Your task to perform on an android device: When is my next meeting? Image 0: 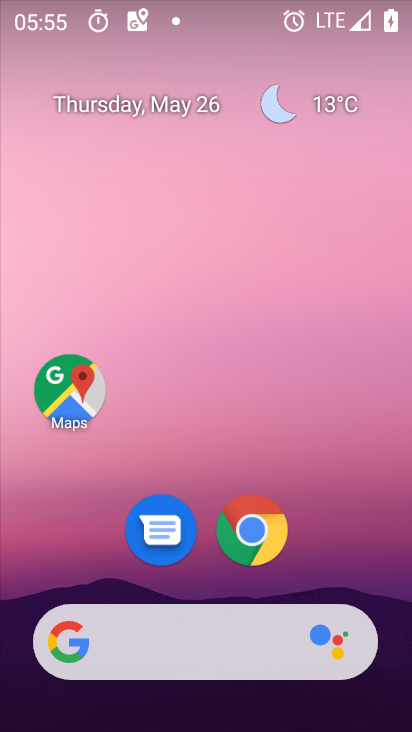
Step 0: drag from (351, 623) to (374, 3)
Your task to perform on an android device: When is my next meeting? Image 1: 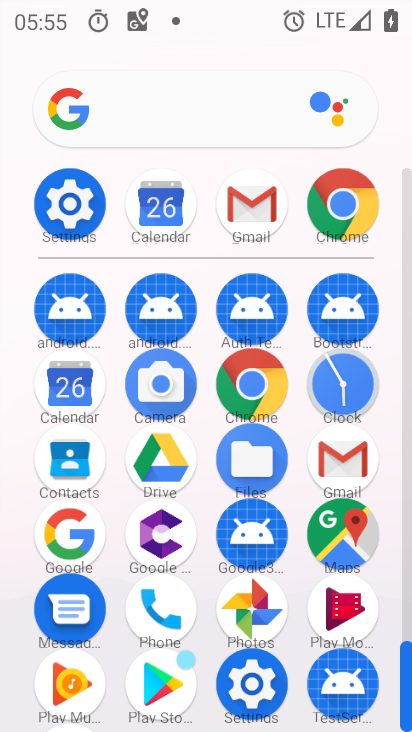
Step 1: click (87, 399)
Your task to perform on an android device: When is my next meeting? Image 2: 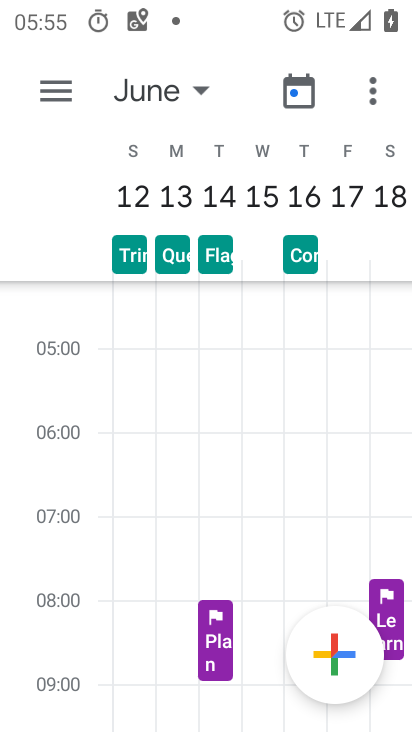
Step 2: click (203, 91)
Your task to perform on an android device: When is my next meeting? Image 3: 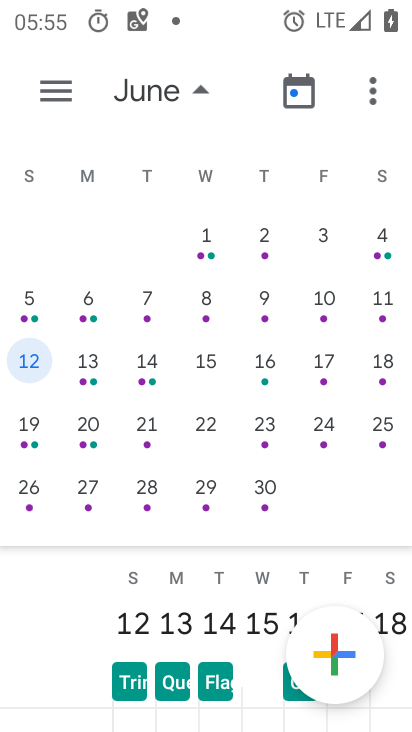
Step 3: drag from (76, 320) to (380, 319)
Your task to perform on an android device: When is my next meeting? Image 4: 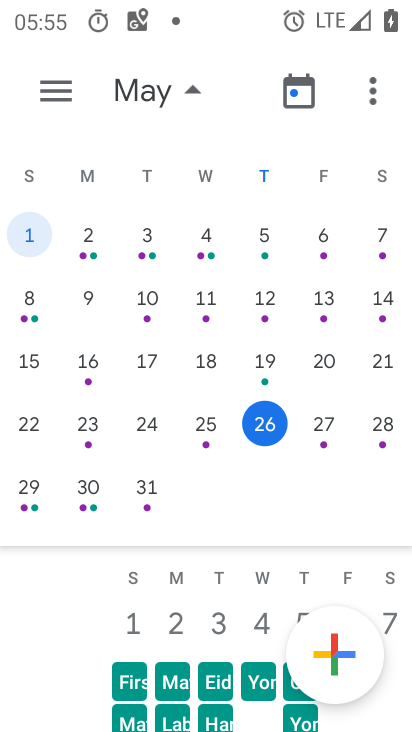
Step 4: click (325, 426)
Your task to perform on an android device: When is my next meeting? Image 5: 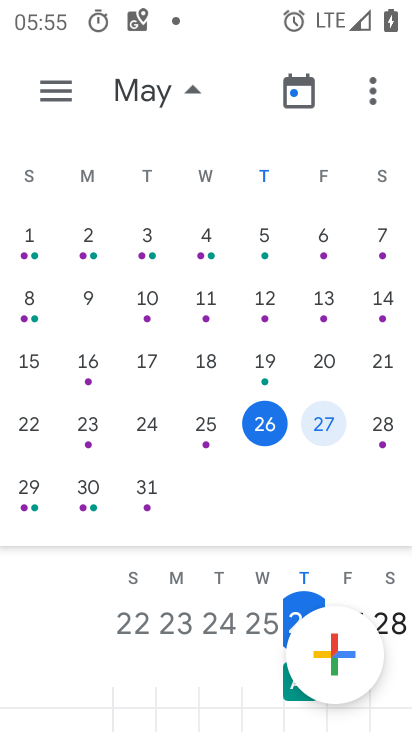
Step 5: task complete